Your task to perform on an android device: turn smart compose on in the gmail app Image 0: 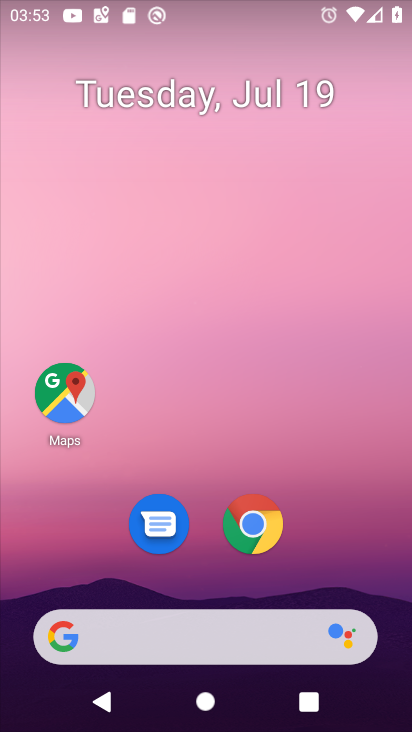
Step 0: drag from (335, 559) to (286, 62)
Your task to perform on an android device: turn smart compose on in the gmail app Image 1: 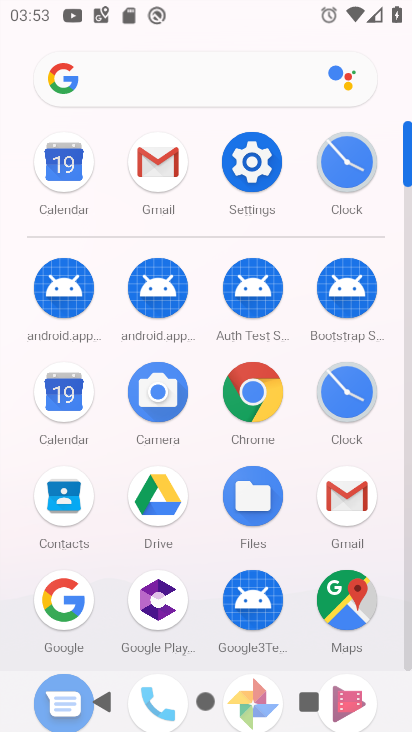
Step 1: click (156, 145)
Your task to perform on an android device: turn smart compose on in the gmail app Image 2: 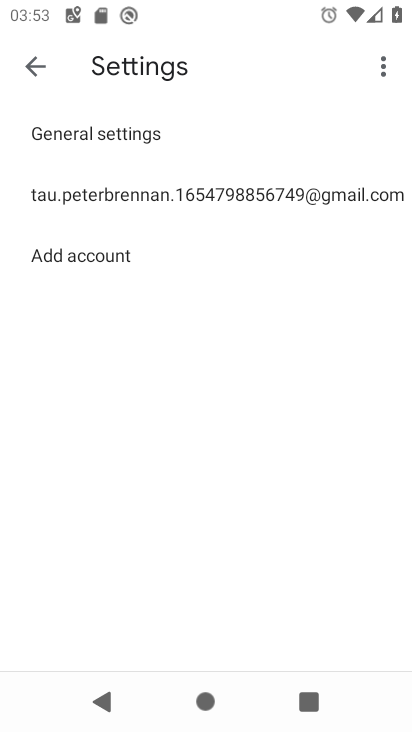
Step 2: click (154, 184)
Your task to perform on an android device: turn smart compose on in the gmail app Image 3: 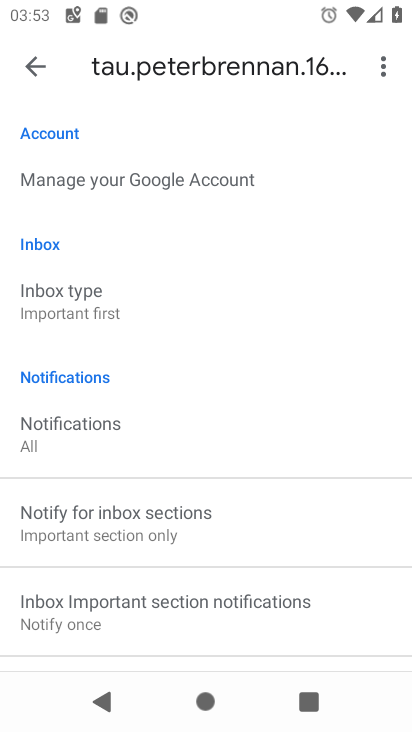
Step 3: task complete